Your task to perform on an android device: turn off sleep mode Image 0: 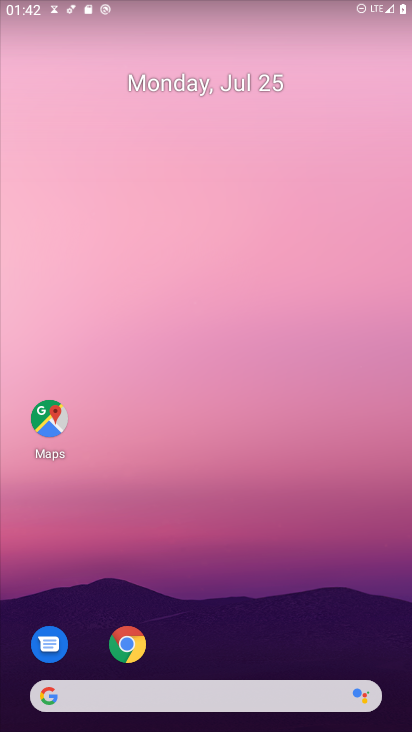
Step 0: click (355, 593)
Your task to perform on an android device: turn off sleep mode Image 1: 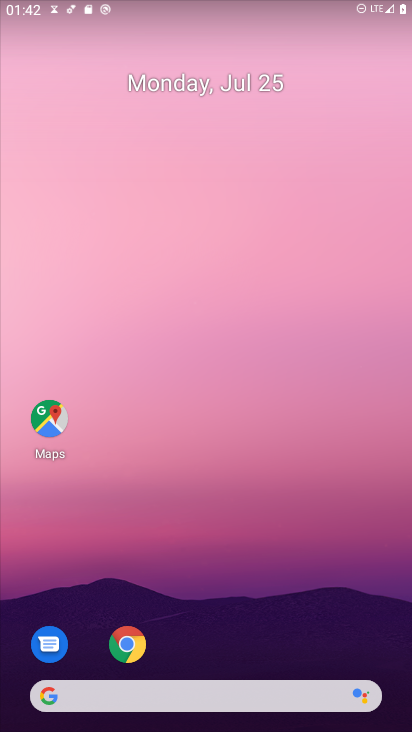
Step 1: drag from (197, 571) to (201, 280)
Your task to perform on an android device: turn off sleep mode Image 2: 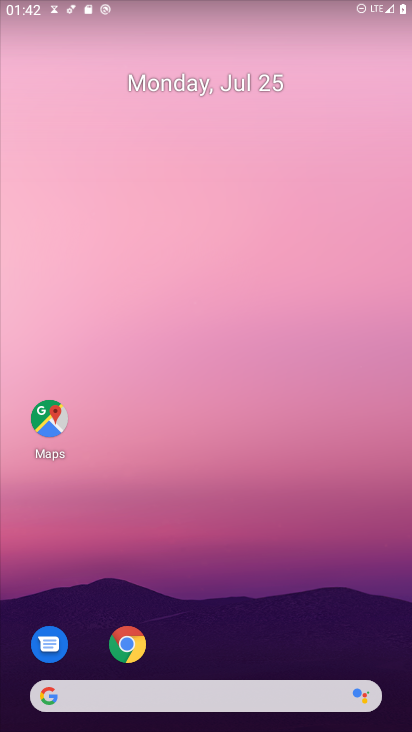
Step 2: drag from (209, 726) to (213, 346)
Your task to perform on an android device: turn off sleep mode Image 3: 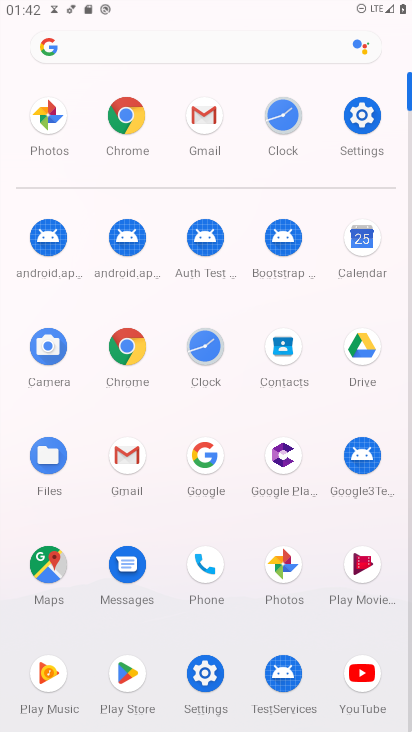
Step 3: click (370, 105)
Your task to perform on an android device: turn off sleep mode Image 4: 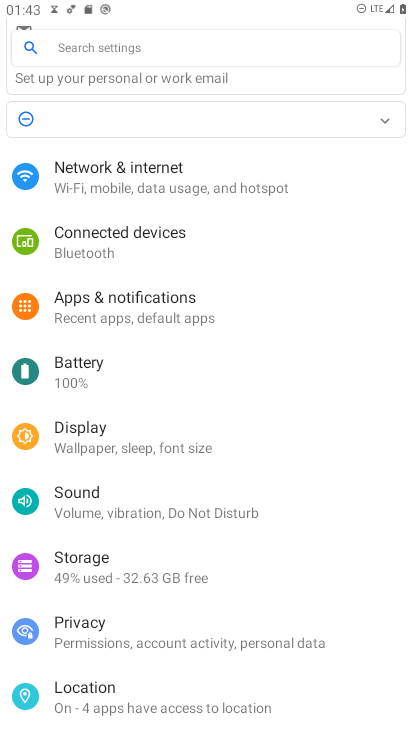
Step 4: click (197, 449)
Your task to perform on an android device: turn off sleep mode Image 5: 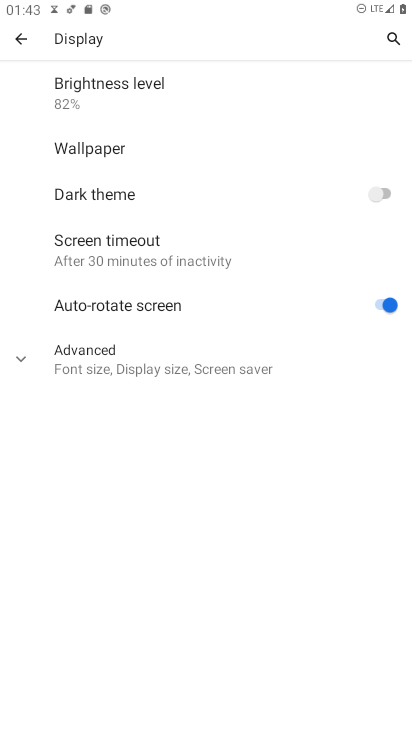
Step 5: task complete